Your task to perform on an android device: Empty the shopping cart on walmart. Add "acer predator" to the cart on walmart Image 0: 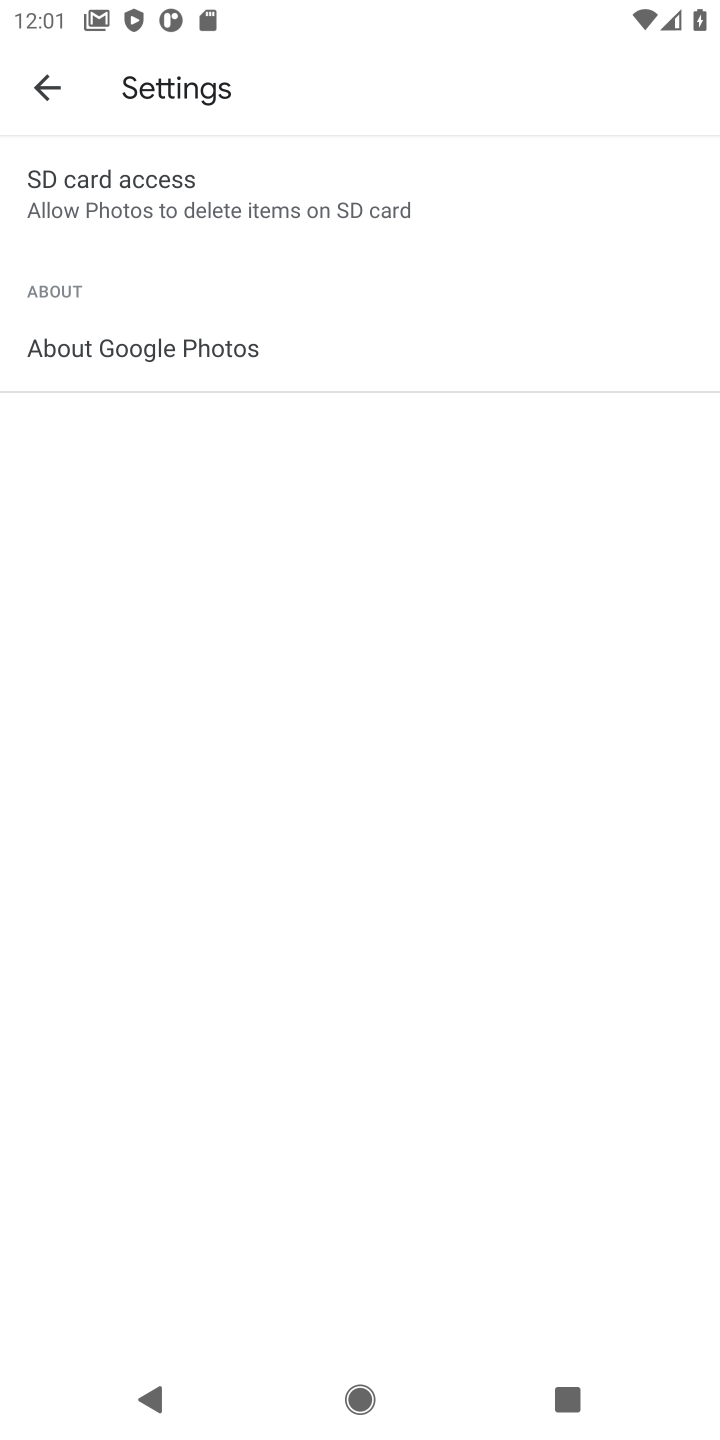
Step 0: press home button
Your task to perform on an android device: Empty the shopping cart on walmart. Add "acer predator" to the cart on walmart Image 1: 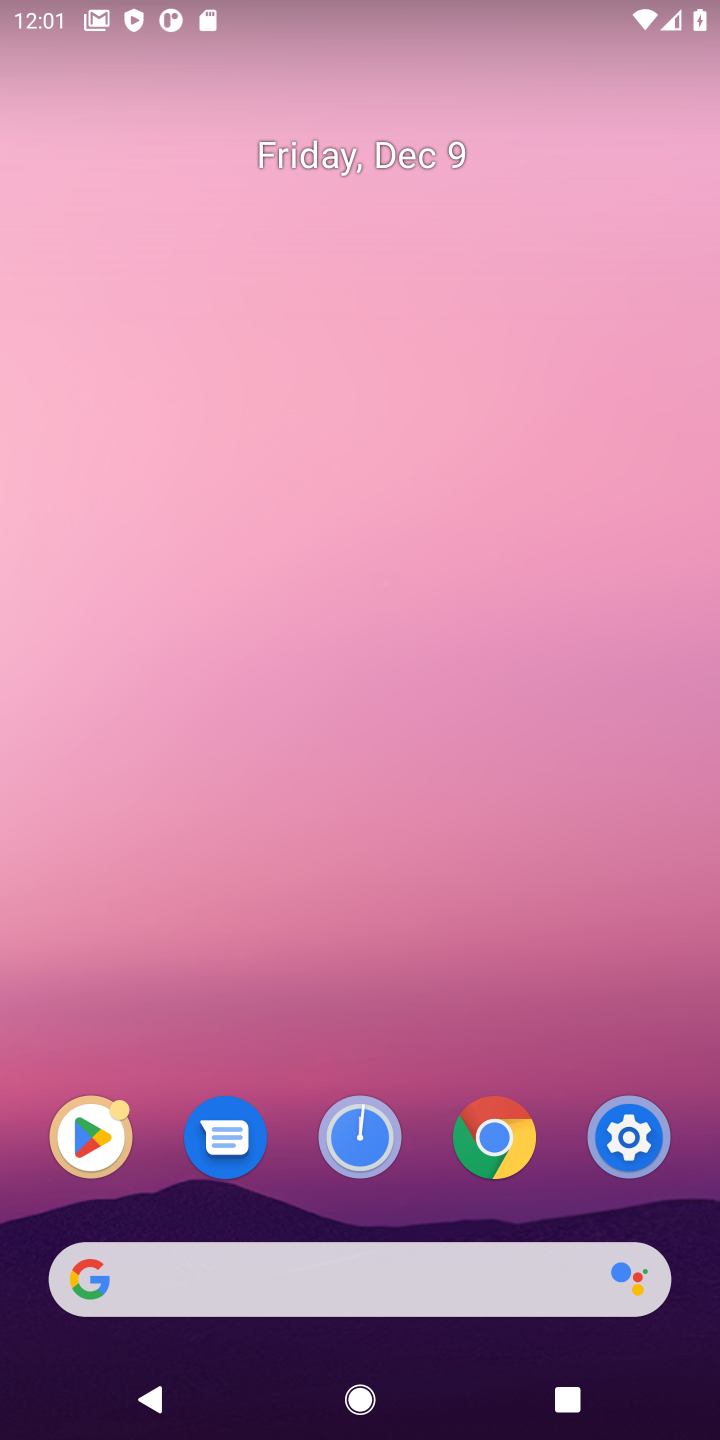
Step 1: click (306, 1279)
Your task to perform on an android device: Empty the shopping cart on walmart. Add "acer predator" to the cart on walmart Image 2: 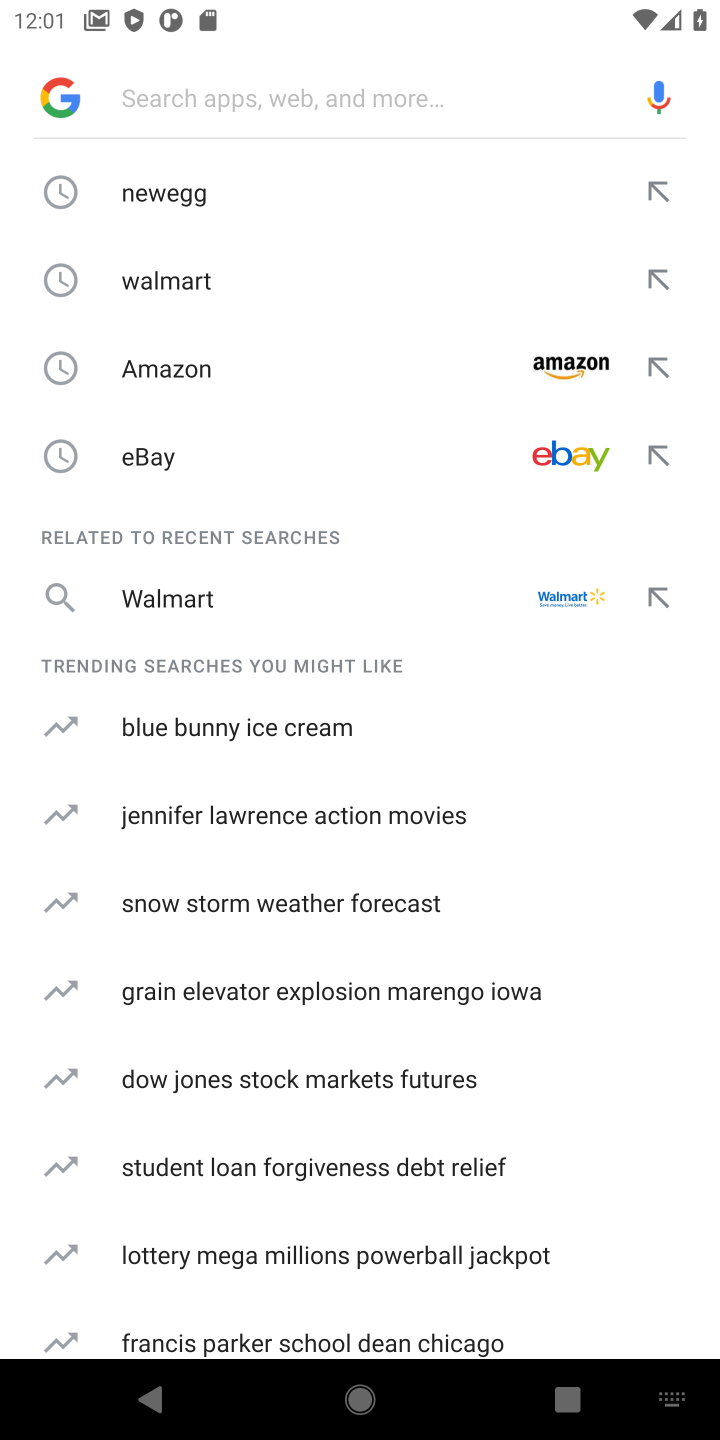
Step 2: click (272, 275)
Your task to perform on an android device: Empty the shopping cart on walmart. Add "acer predator" to the cart on walmart Image 3: 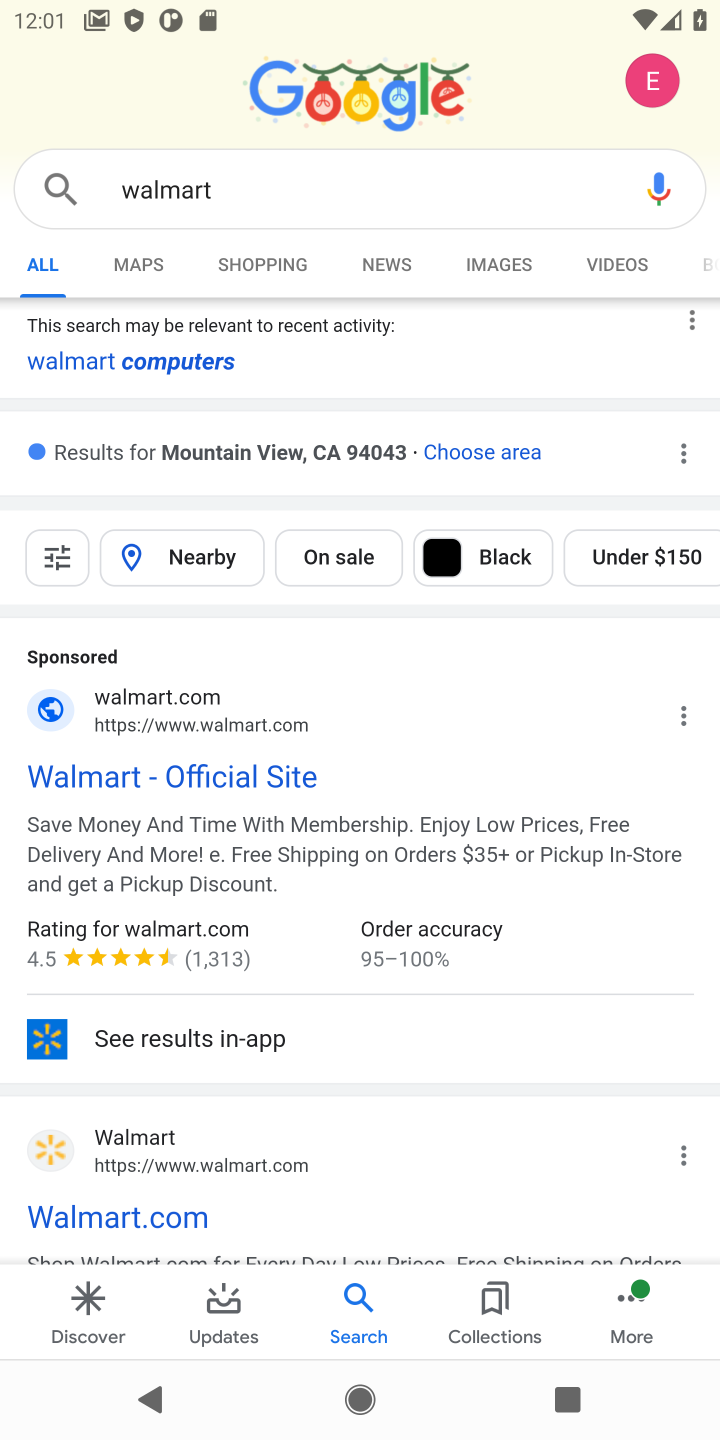
Step 3: click (167, 764)
Your task to perform on an android device: Empty the shopping cart on walmart. Add "acer predator" to the cart on walmart Image 4: 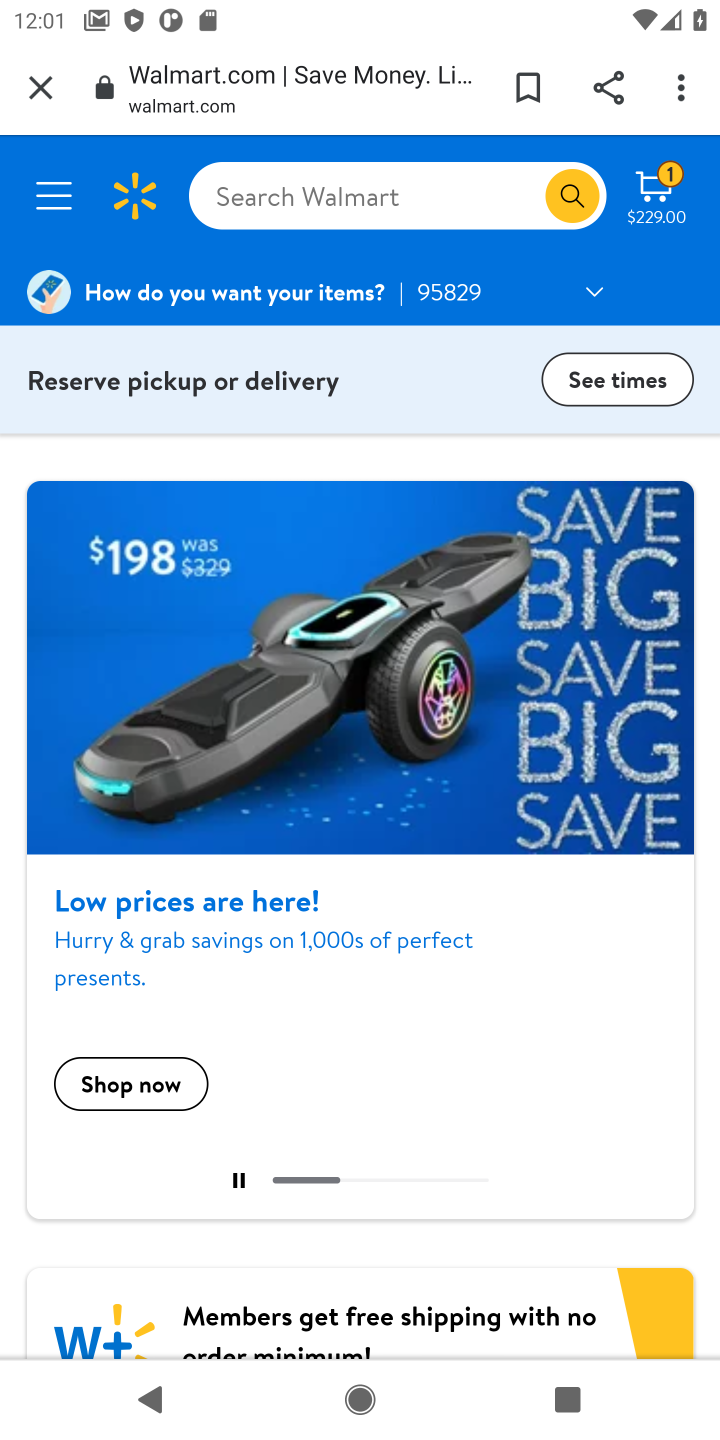
Step 4: click (292, 195)
Your task to perform on an android device: Empty the shopping cart on walmart. Add "acer predator" to the cart on walmart Image 5: 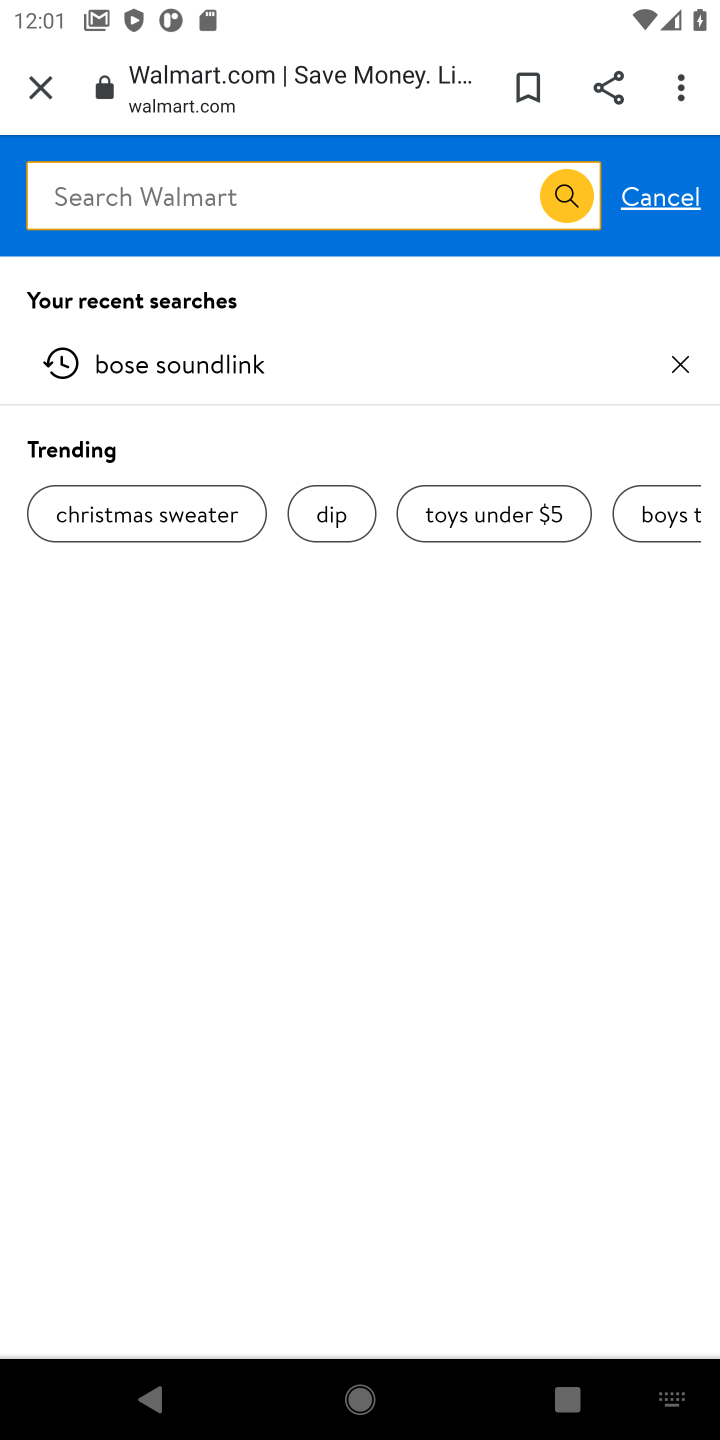
Step 5: type "acer predator"
Your task to perform on an android device: Empty the shopping cart on walmart. Add "acer predator" to the cart on walmart Image 6: 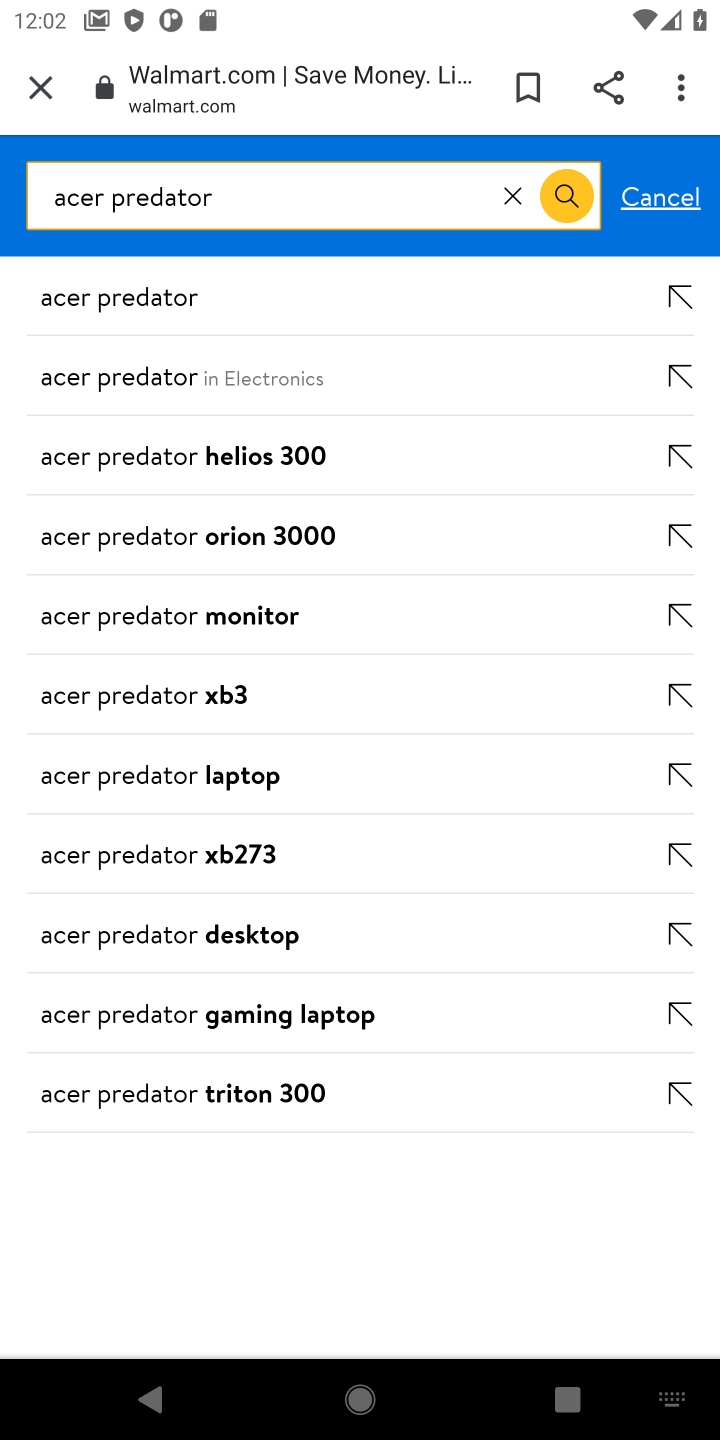
Step 6: click (250, 286)
Your task to perform on an android device: Empty the shopping cart on walmart. Add "acer predator" to the cart on walmart Image 7: 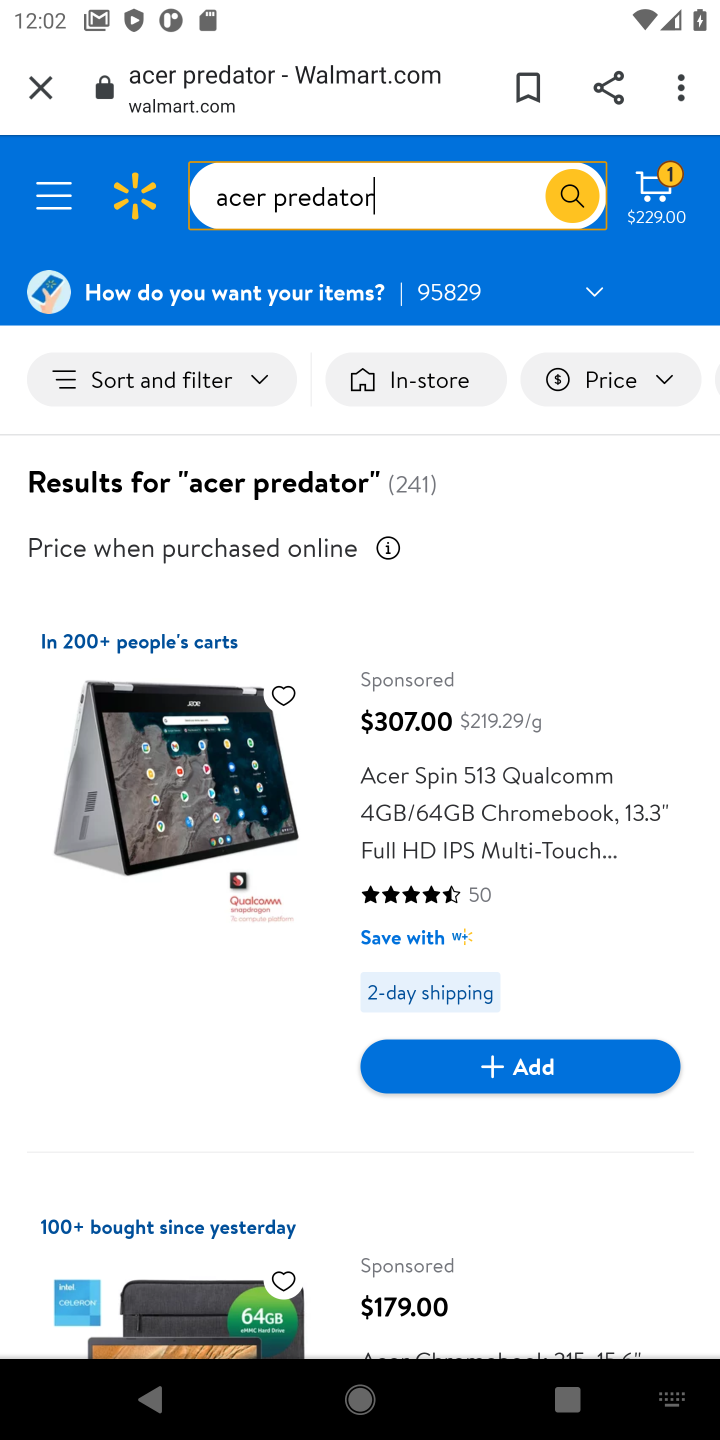
Step 7: click (533, 1080)
Your task to perform on an android device: Empty the shopping cart on walmart. Add "acer predator" to the cart on walmart Image 8: 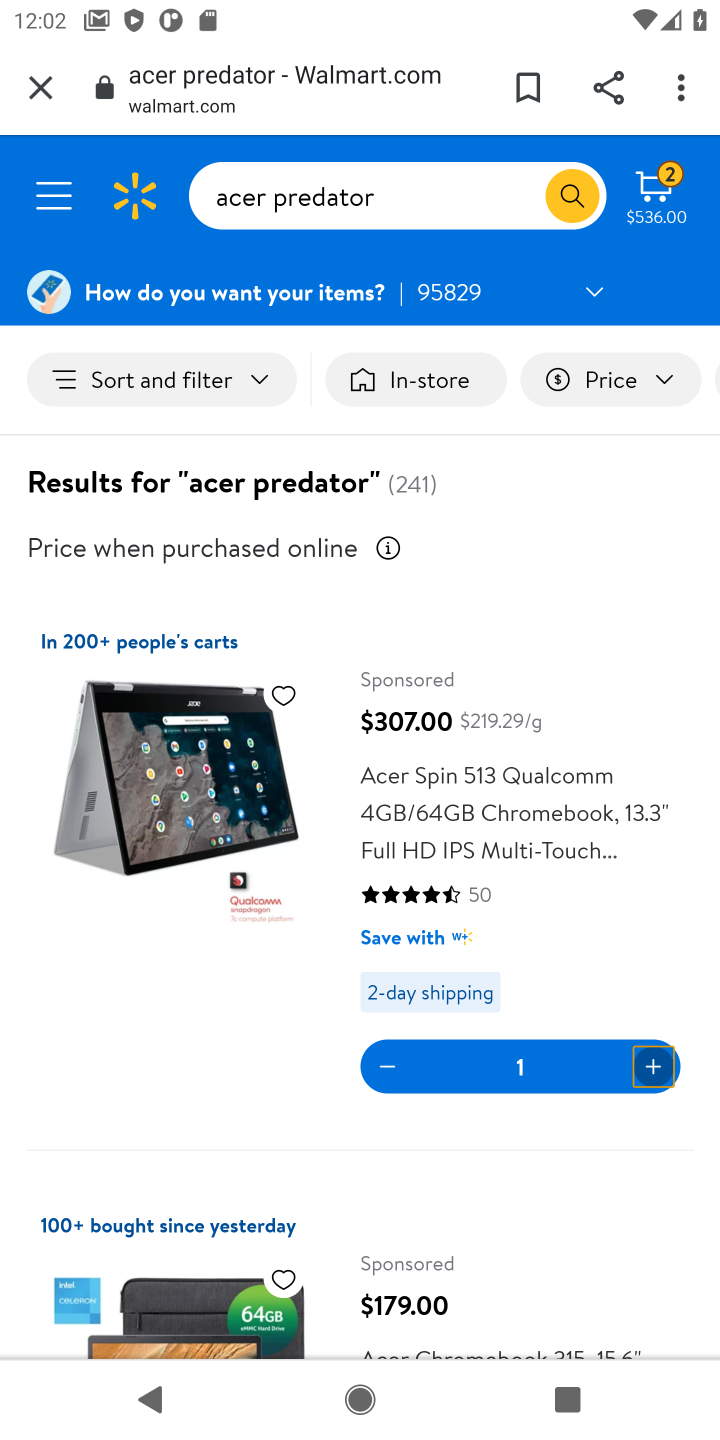
Step 8: task complete